Your task to perform on an android device: turn off location Image 0: 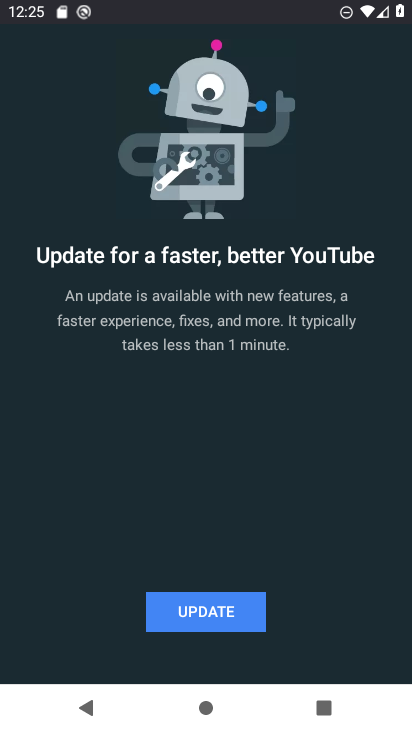
Step 0: click (113, 589)
Your task to perform on an android device: turn off location Image 1: 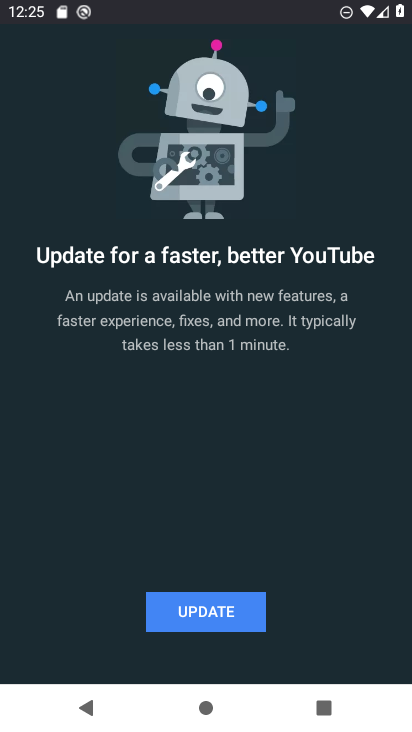
Step 1: press home button
Your task to perform on an android device: turn off location Image 2: 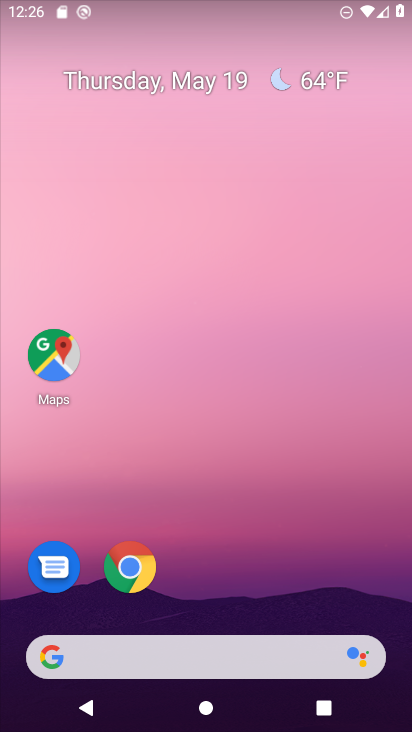
Step 2: drag from (195, 598) to (223, 126)
Your task to perform on an android device: turn off location Image 3: 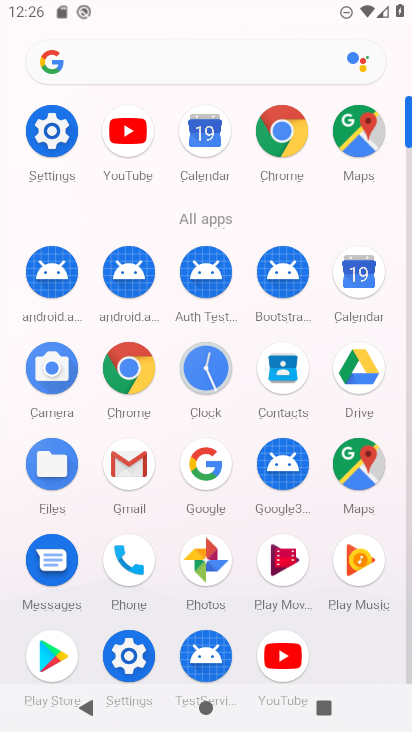
Step 3: click (53, 150)
Your task to perform on an android device: turn off location Image 4: 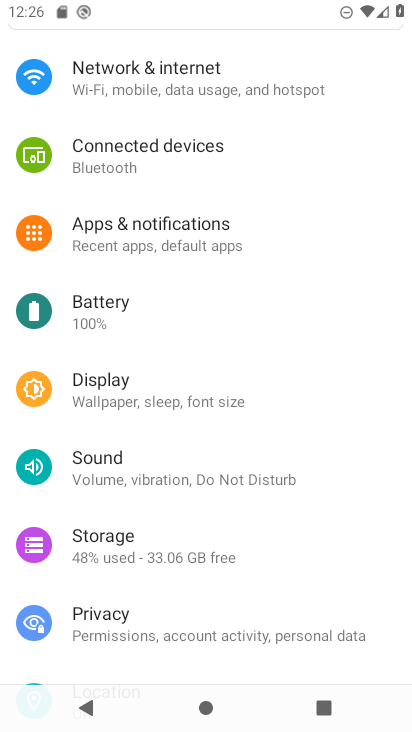
Step 4: drag from (160, 623) to (155, 372)
Your task to perform on an android device: turn off location Image 5: 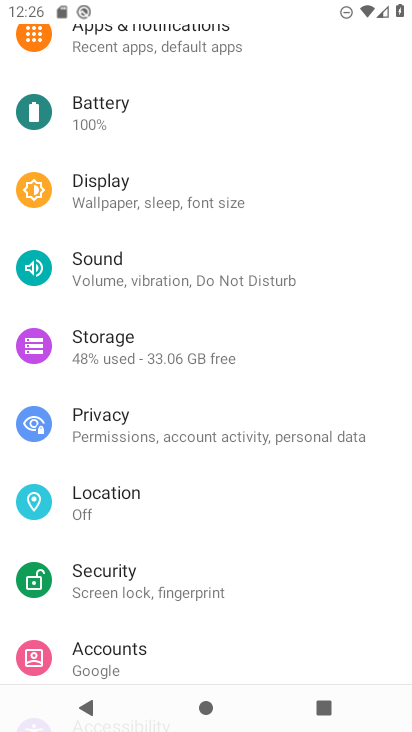
Step 5: click (130, 518)
Your task to perform on an android device: turn off location Image 6: 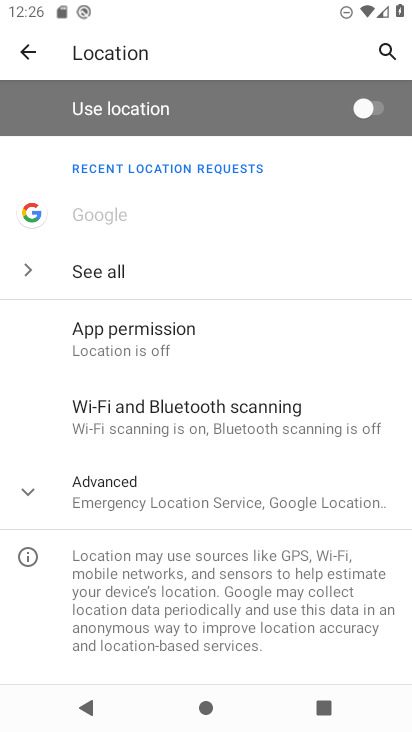
Step 6: task complete